Your task to perform on an android device: Show me the alarms in the clock app Image 0: 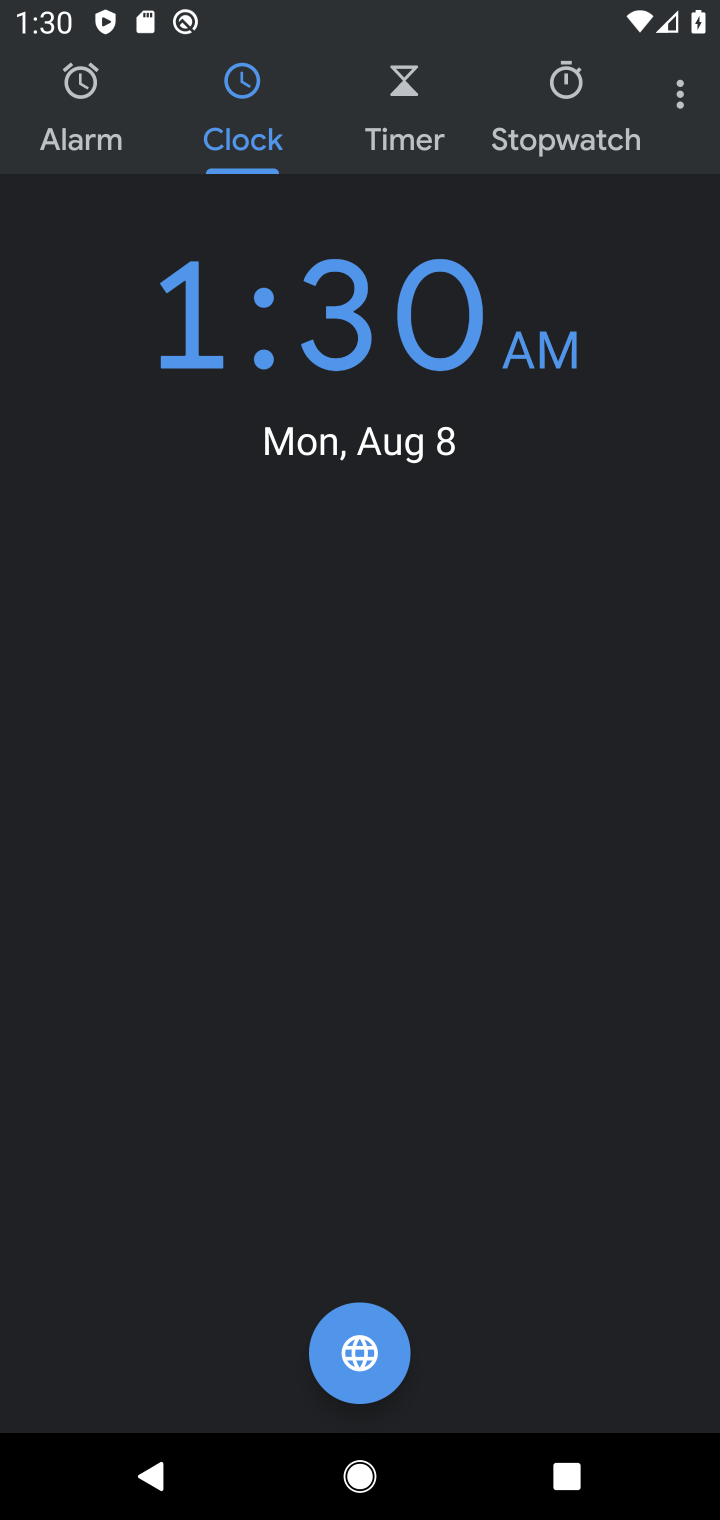
Step 0: press home button
Your task to perform on an android device: Show me the alarms in the clock app Image 1: 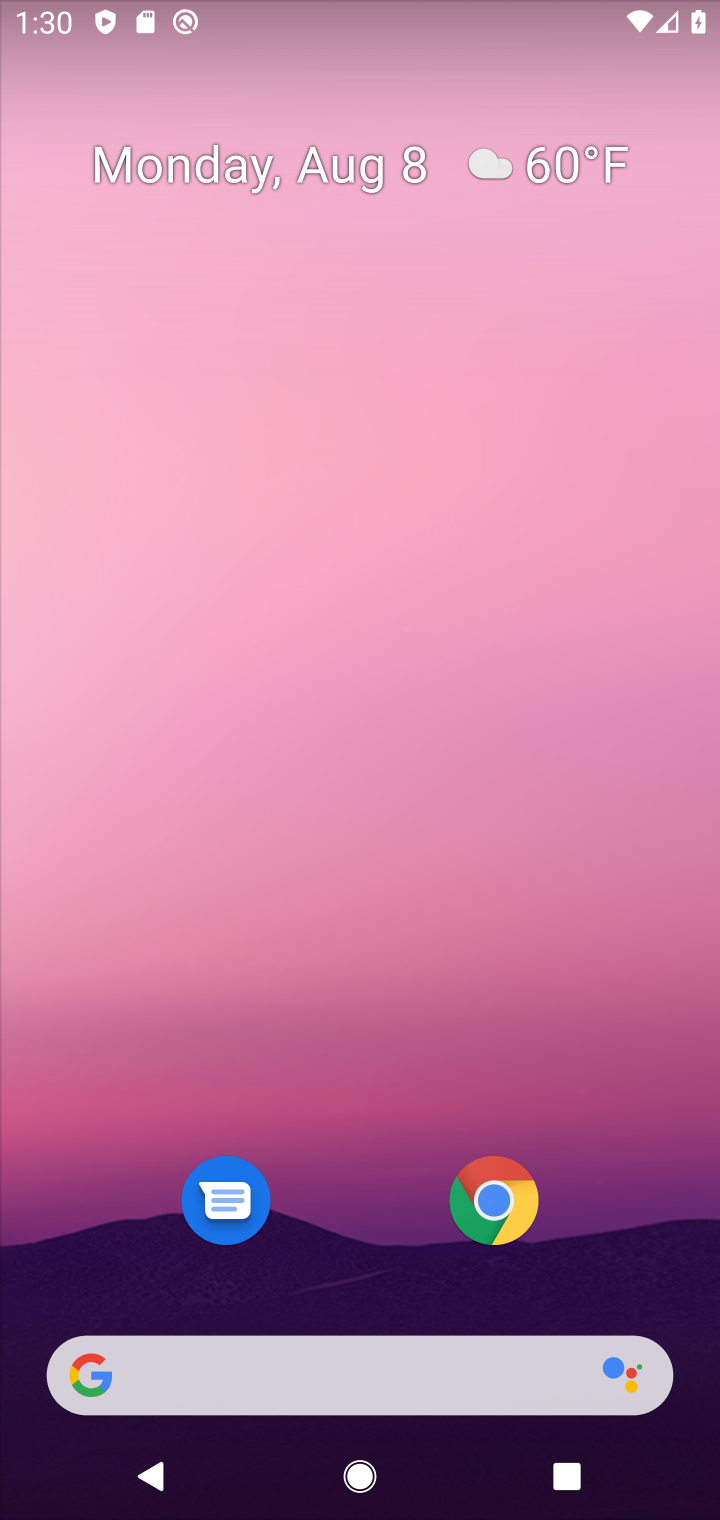
Step 1: drag from (366, 1213) to (382, 99)
Your task to perform on an android device: Show me the alarms in the clock app Image 2: 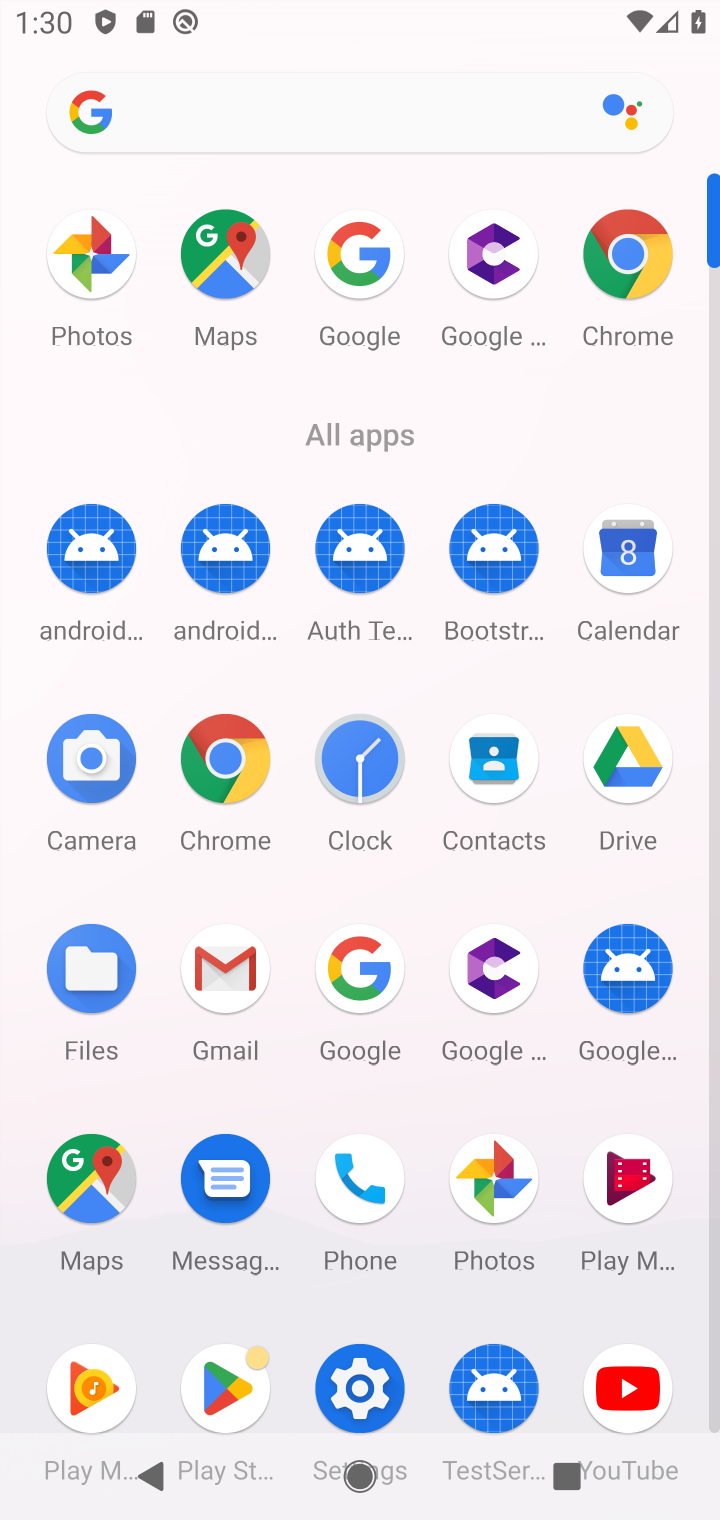
Step 2: click (359, 746)
Your task to perform on an android device: Show me the alarms in the clock app Image 3: 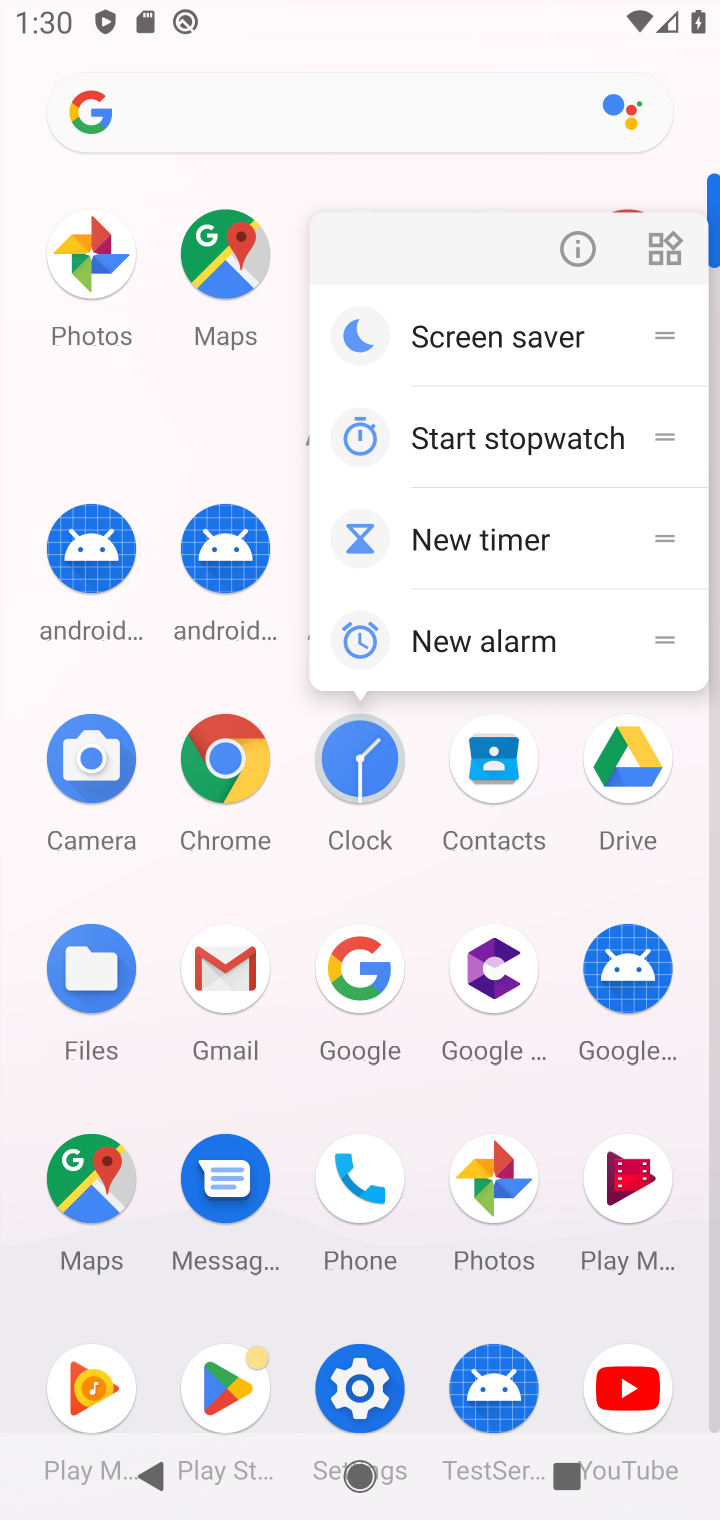
Step 3: click (359, 746)
Your task to perform on an android device: Show me the alarms in the clock app Image 4: 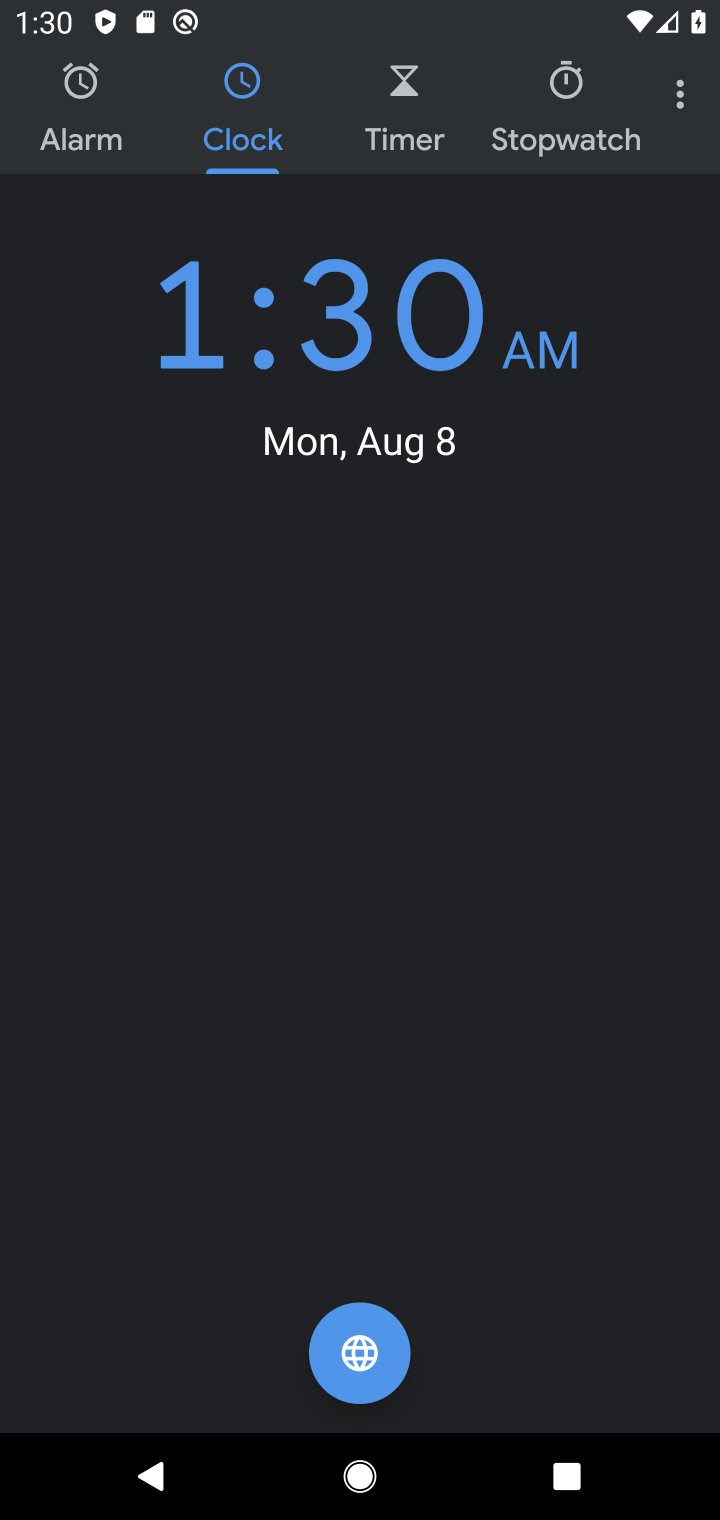
Step 4: click (86, 84)
Your task to perform on an android device: Show me the alarms in the clock app Image 5: 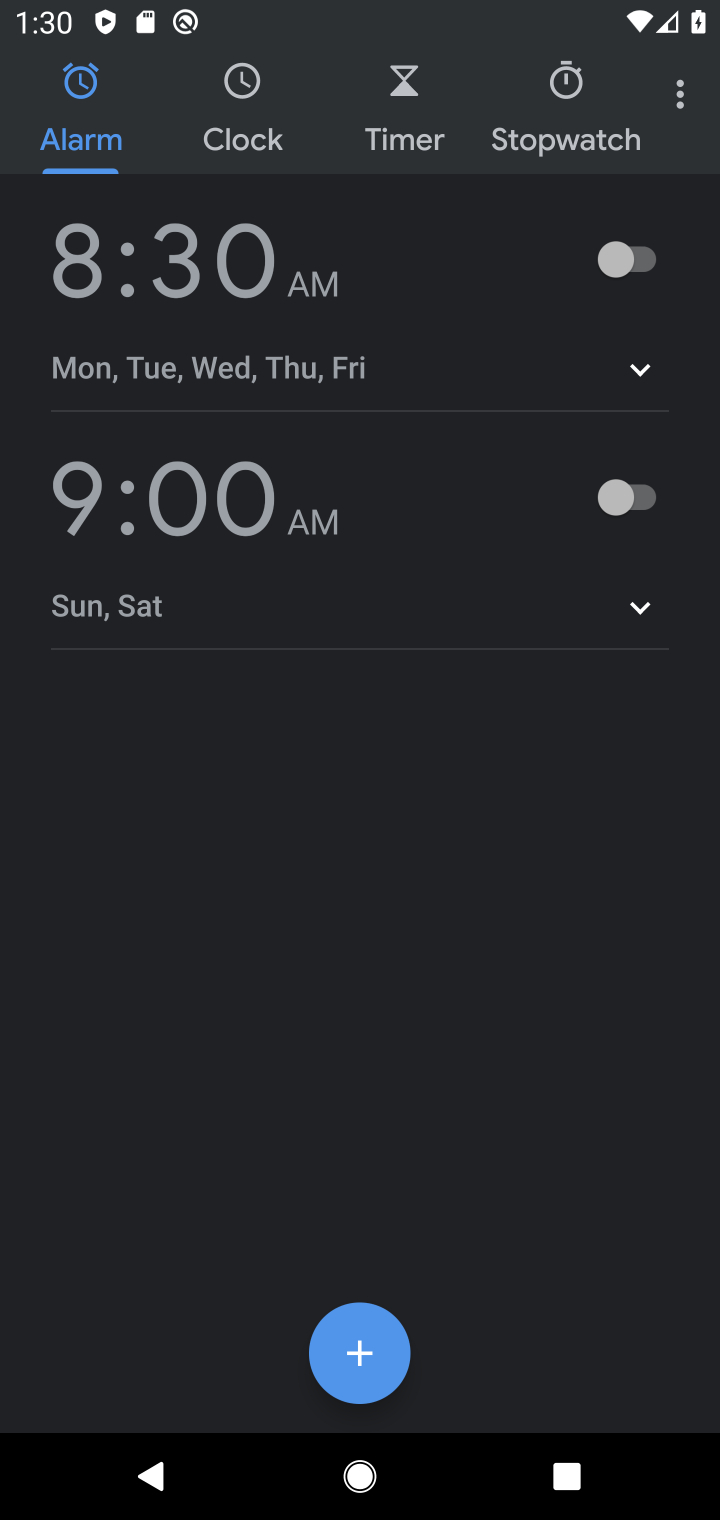
Step 5: click (623, 257)
Your task to perform on an android device: Show me the alarms in the clock app Image 6: 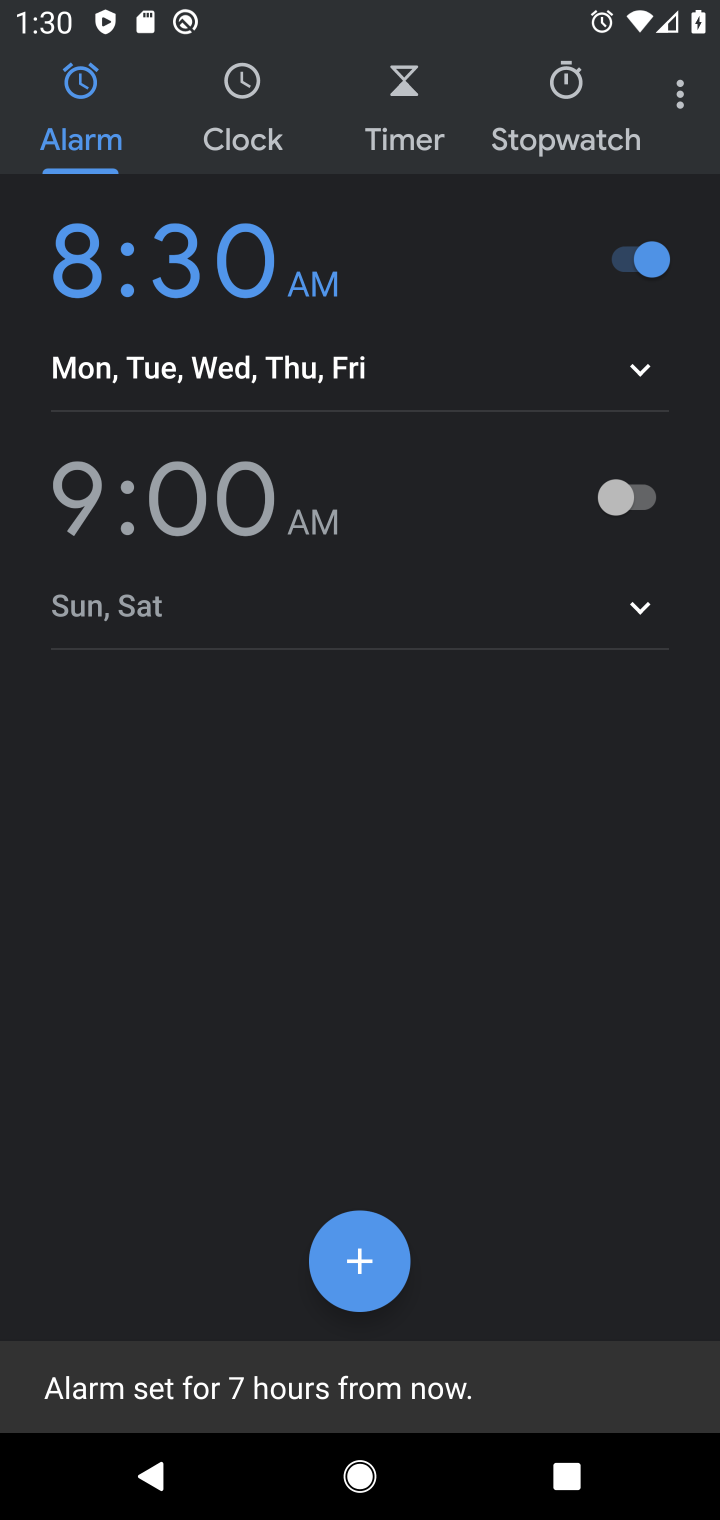
Step 6: task complete